Your task to perform on an android device: Open Google Chrome and click the shortcut for Amazon.com Image 0: 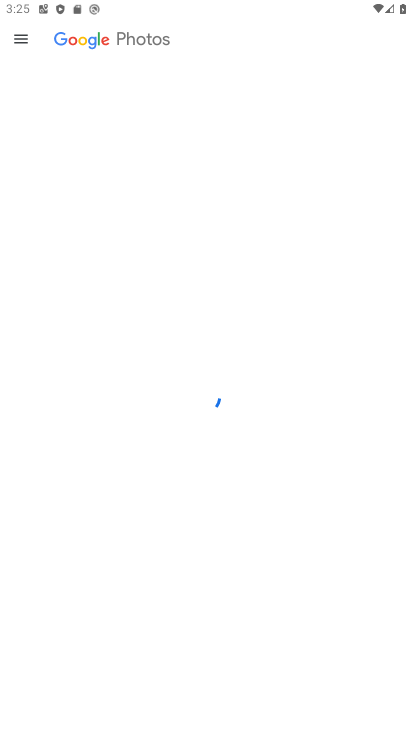
Step 0: press back button
Your task to perform on an android device: Open Google Chrome and click the shortcut for Amazon.com Image 1: 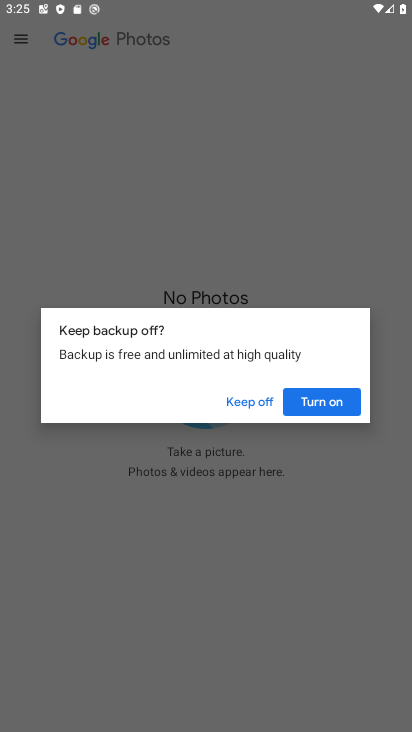
Step 1: press back button
Your task to perform on an android device: Open Google Chrome and click the shortcut for Amazon.com Image 2: 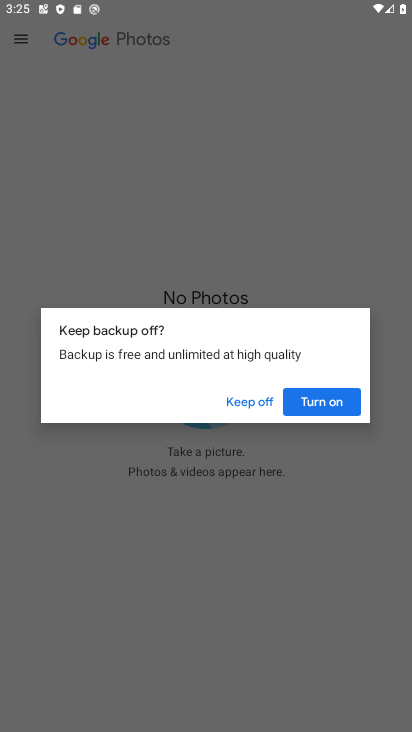
Step 2: press home button
Your task to perform on an android device: Open Google Chrome and click the shortcut for Amazon.com Image 3: 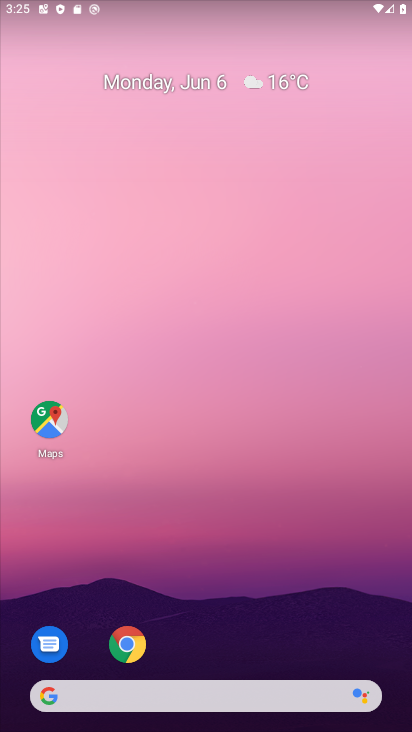
Step 3: drag from (271, 567) to (262, 29)
Your task to perform on an android device: Open Google Chrome and click the shortcut for Amazon.com Image 4: 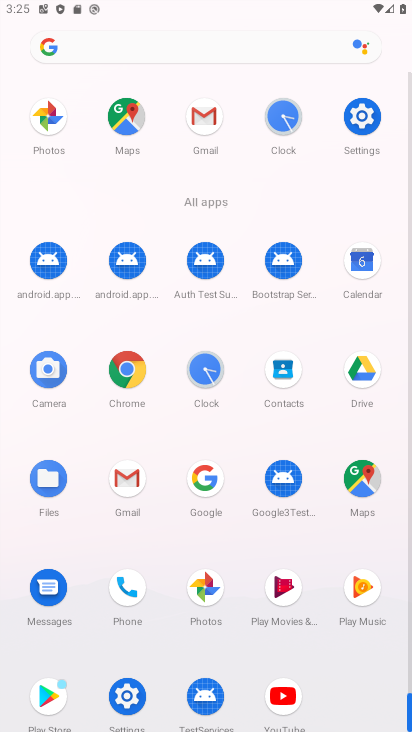
Step 4: click (129, 367)
Your task to perform on an android device: Open Google Chrome and click the shortcut for Amazon.com Image 5: 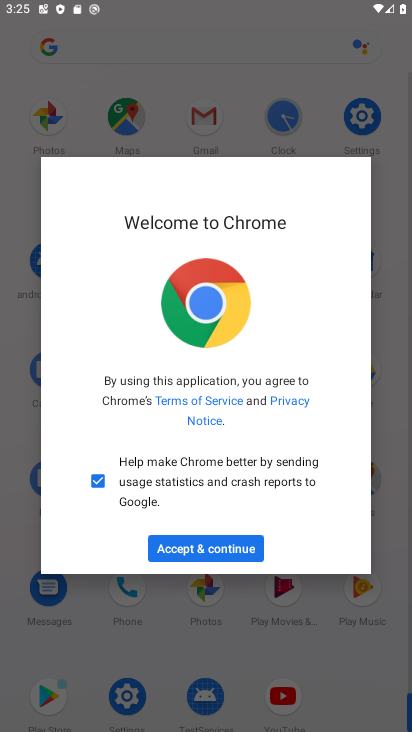
Step 5: click (198, 539)
Your task to perform on an android device: Open Google Chrome and click the shortcut for Amazon.com Image 6: 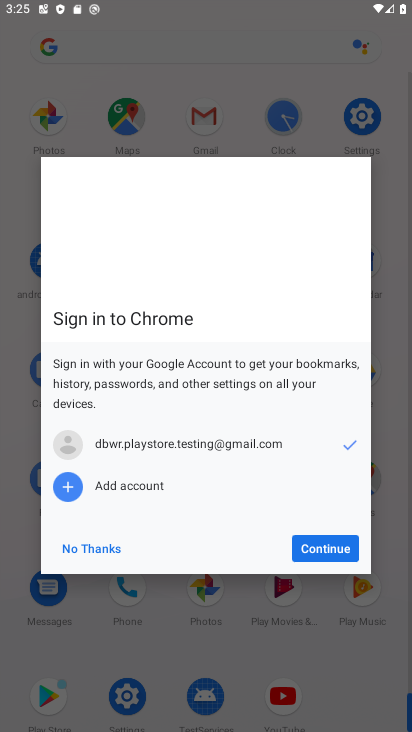
Step 6: click (302, 543)
Your task to perform on an android device: Open Google Chrome and click the shortcut for Amazon.com Image 7: 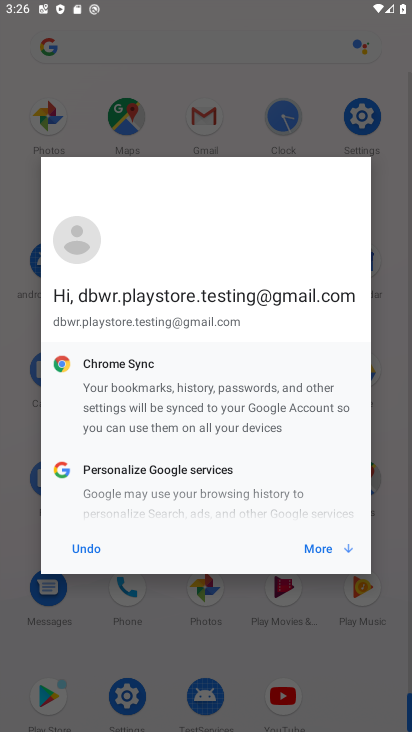
Step 7: click (314, 547)
Your task to perform on an android device: Open Google Chrome and click the shortcut for Amazon.com Image 8: 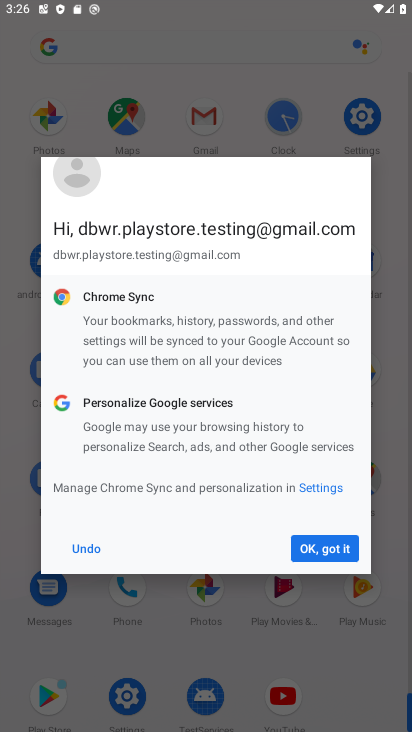
Step 8: click (314, 547)
Your task to perform on an android device: Open Google Chrome and click the shortcut for Amazon.com Image 9: 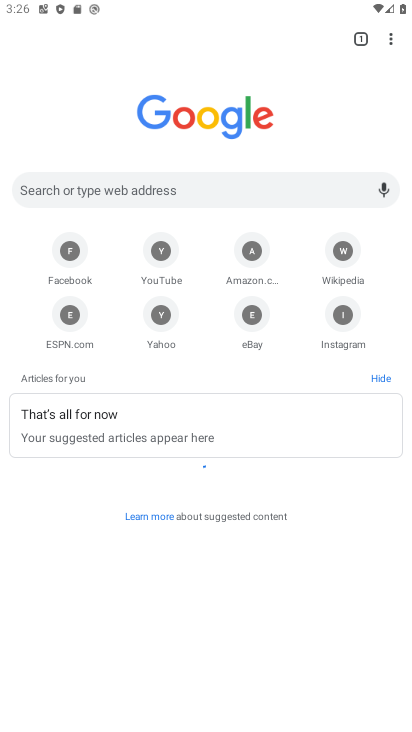
Step 9: click (203, 192)
Your task to perform on an android device: Open Google Chrome and click the shortcut for Amazon.com Image 10: 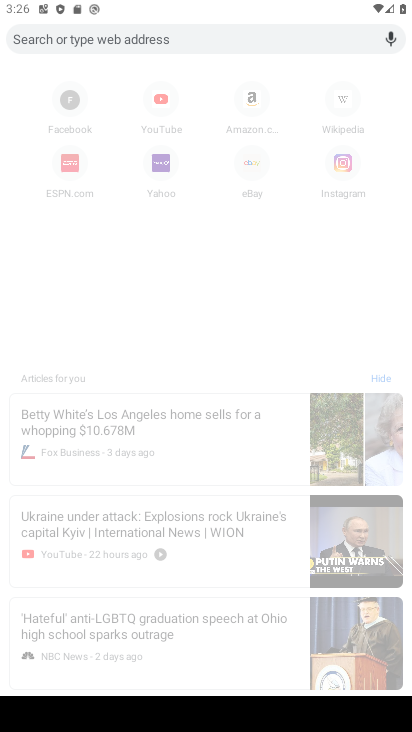
Step 10: type "Amazon.com"
Your task to perform on an android device: Open Google Chrome and click the shortcut for Amazon.com Image 11: 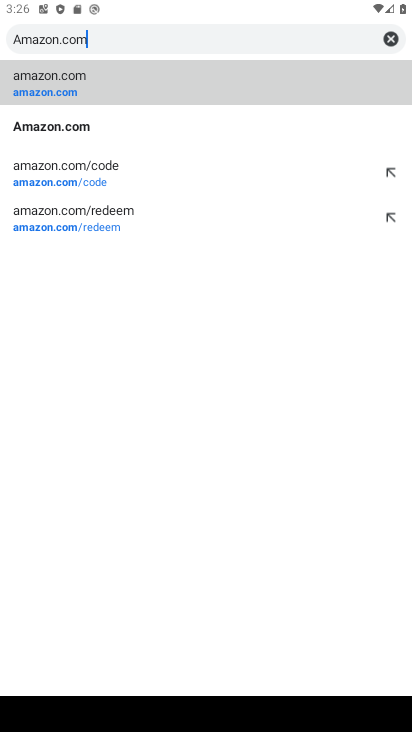
Step 11: type ""
Your task to perform on an android device: Open Google Chrome and click the shortcut for Amazon.com Image 12: 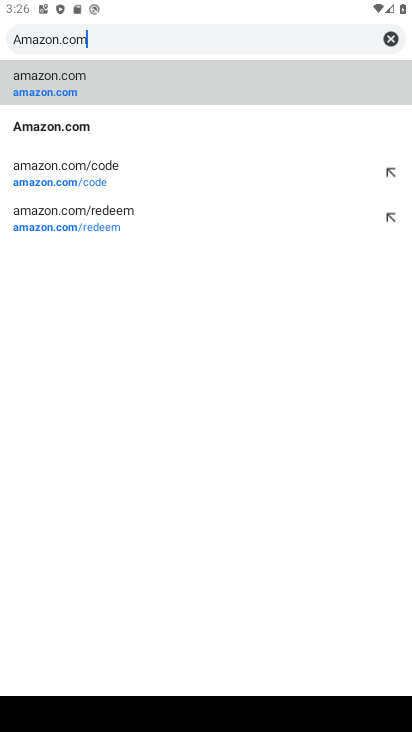
Step 12: click (94, 89)
Your task to perform on an android device: Open Google Chrome and click the shortcut for Amazon.com Image 13: 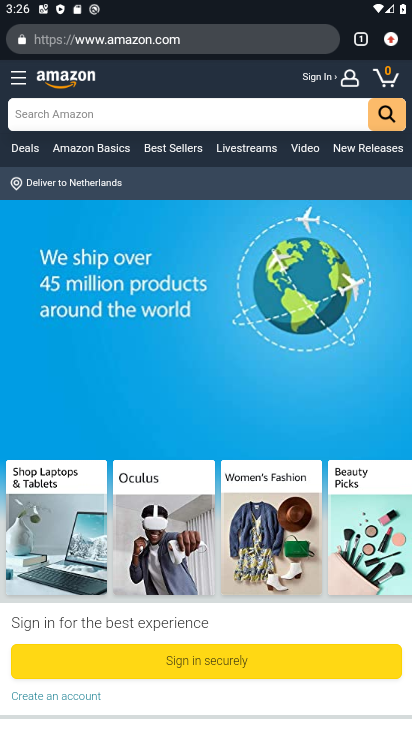
Step 13: task complete